Your task to perform on an android device: toggle wifi Image 0: 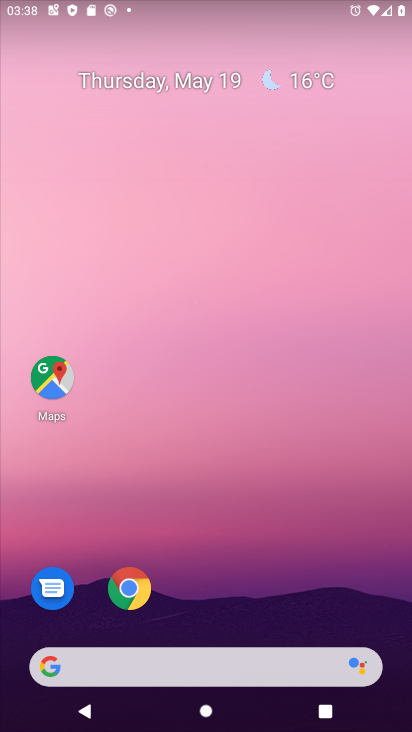
Step 0: drag from (245, 528) to (325, 104)
Your task to perform on an android device: toggle wifi Image 1: 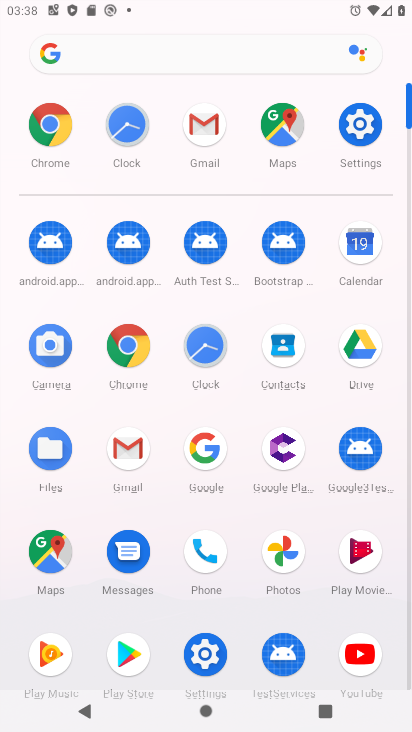
Step 1: click (358, 125)
Your task to perform on an android device: toggle wifi Image 2: 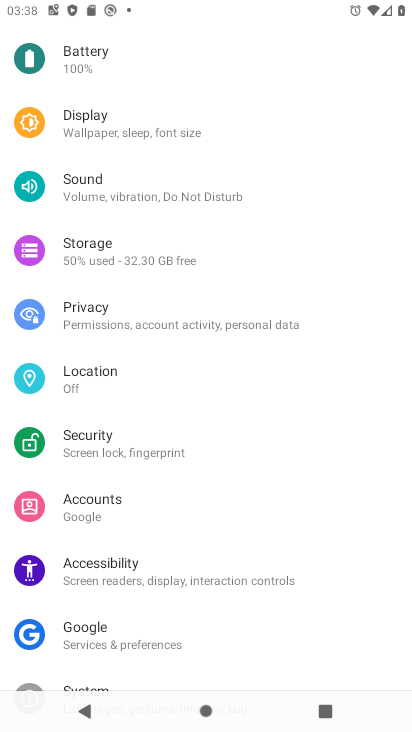
Step 2: drag from (159, 531) to (221, 119)
Your task to perform on an android device: toggle wifi Image 3: 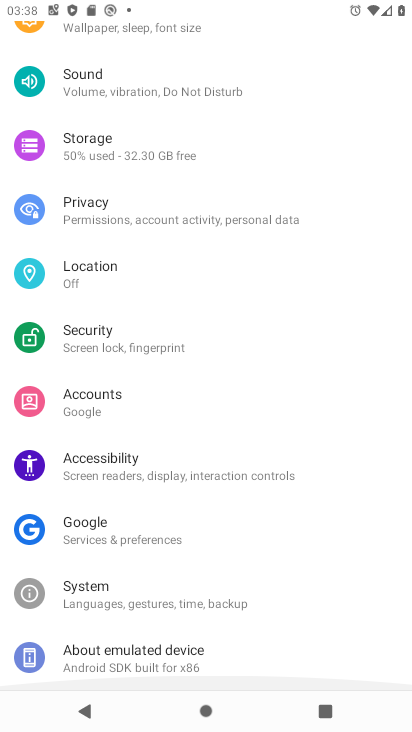
Step 3: drag from (221, 123) to (263, 695)
Your task to perform on an android device: toggle wifi Image 4: 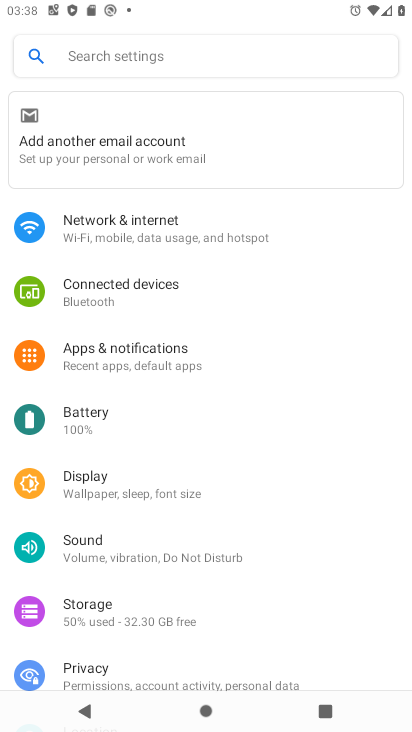
Step 4: click (137, 221)
Your task to perform on an android device: toggle wifi Image 5: 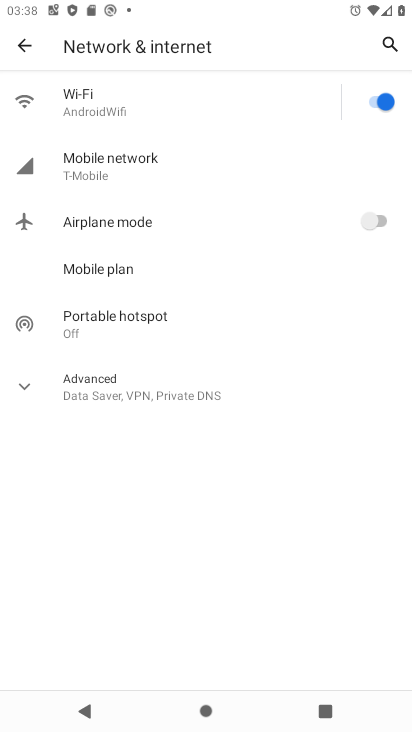
Step 5: click (390, 97)
Your task to perform on an android device: toggle wifi Image 6: 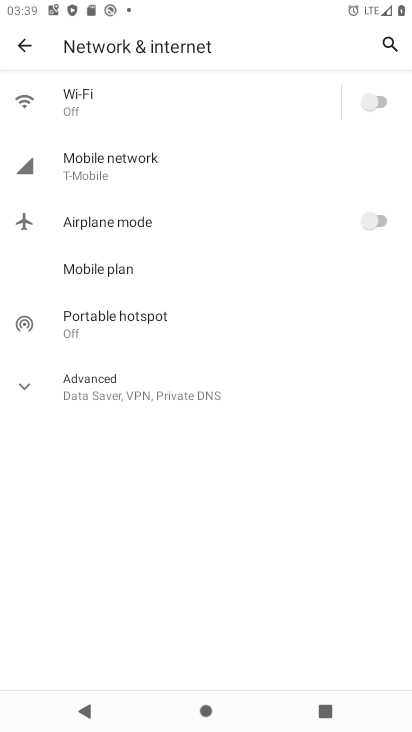
Step 6: task complete